Your task to perform on an android device: check battery use Image 0: 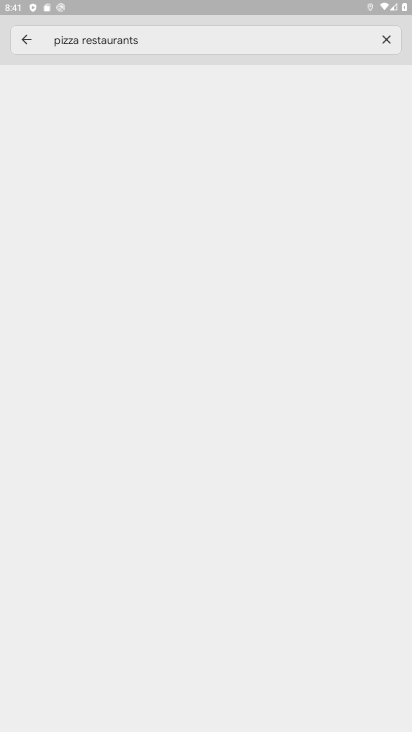
Step 0: press home button
Your task to perform on an android device: check battery use Image 1: 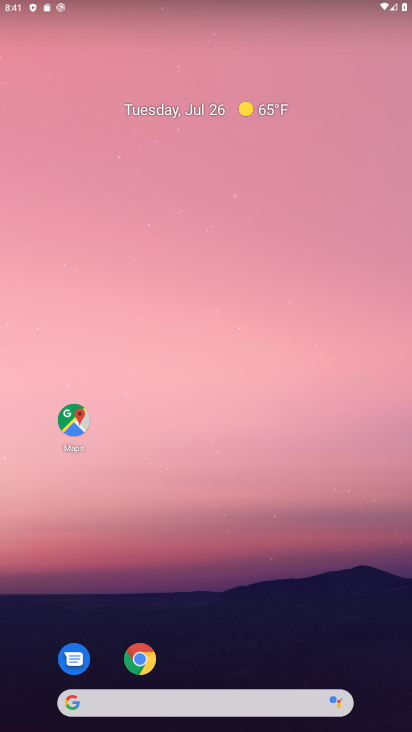
Step 1: drag from (183, 565) to (152, 78)
Your task to perform on an android device: check battery use Image 2: 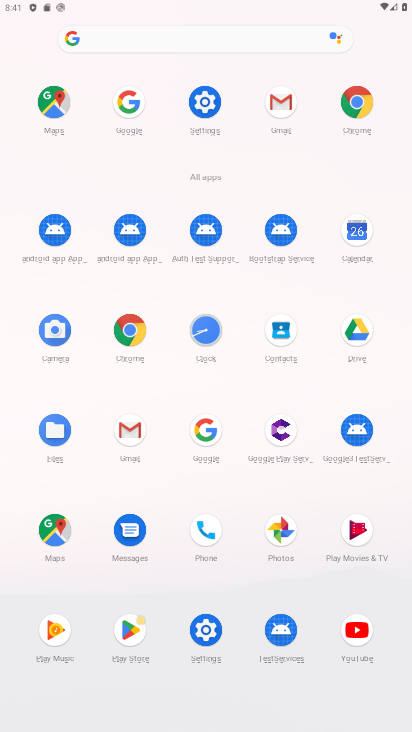
Step 2: click (201, 103)
Your task to perform on an android device: check battery use Image 3: 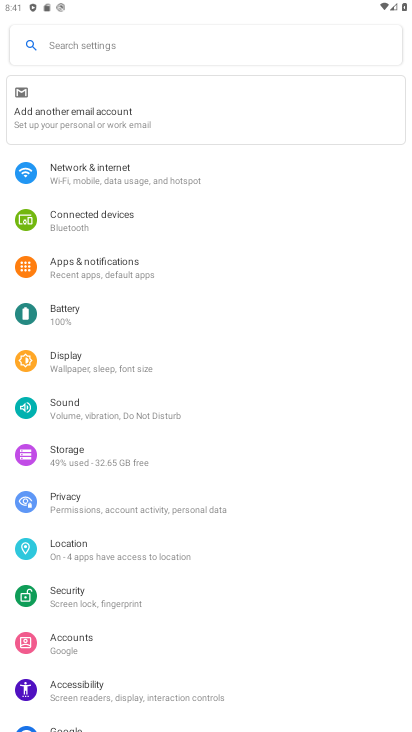
Step 3: click (47, 301)
Your task to perform on an android device: check battery use Image 4: 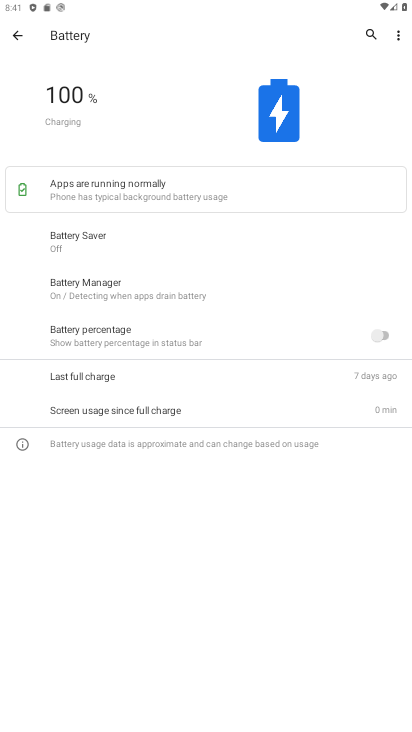
Step 4: task complete